Your task to perform on an android device: toggle notification dots Image 0: 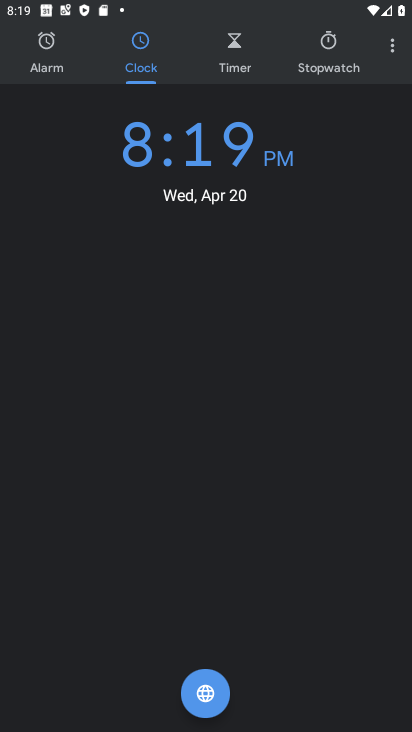
Step 0: press home button
Your task to perform on an android device: toggle notification dots Image 1: 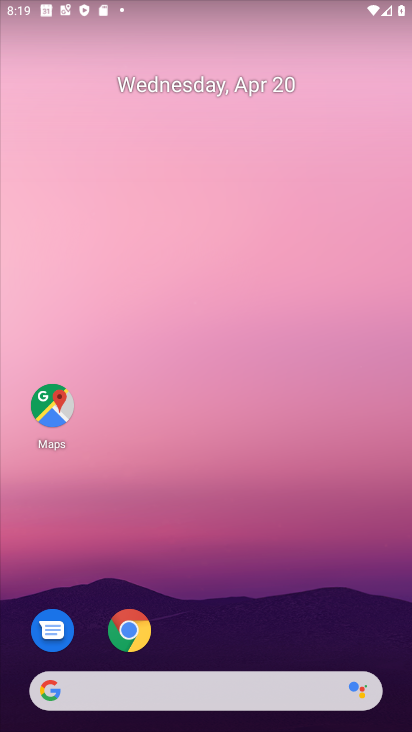
Step 1: drag from (216, 586) to (166, 29)
Your task to perform on an android device: toggle notification dots Image 2: 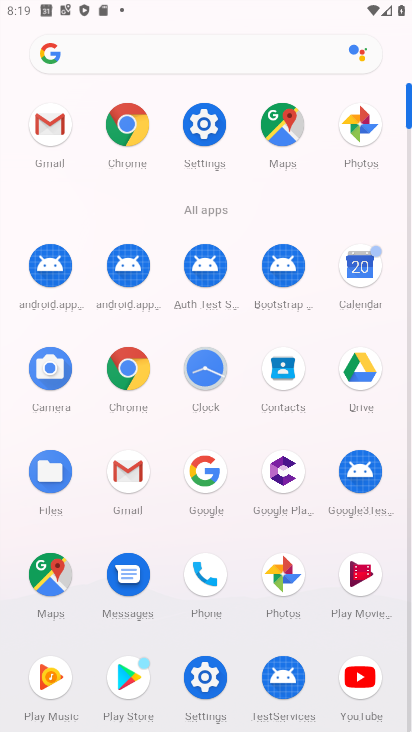
Step 2: click (206, 125)
Your task to perform on an android device: toggle notification dots Image 3: 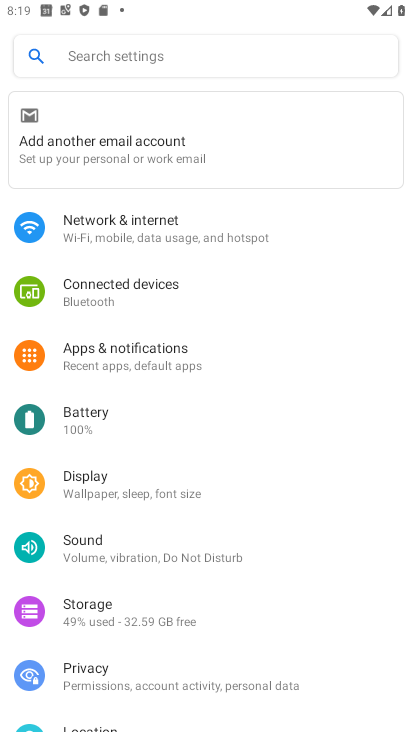
Step 3: click (97, 360)
Your task to perform on an android device: toggle notification dots Image 4: 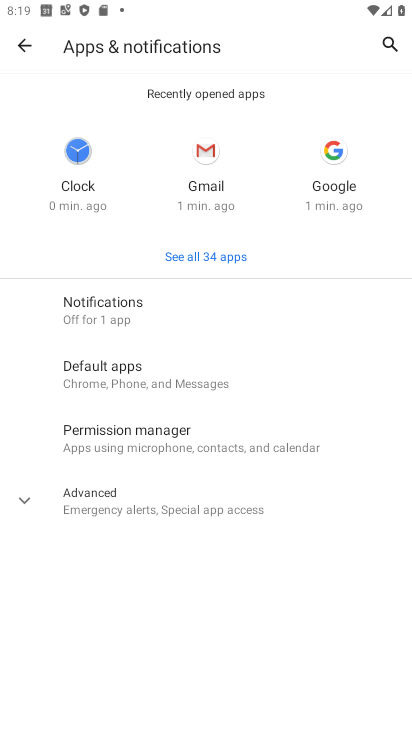
Step 4: click (127, 318)
Your task to perform on an android device: toggle notification dots Image 5: 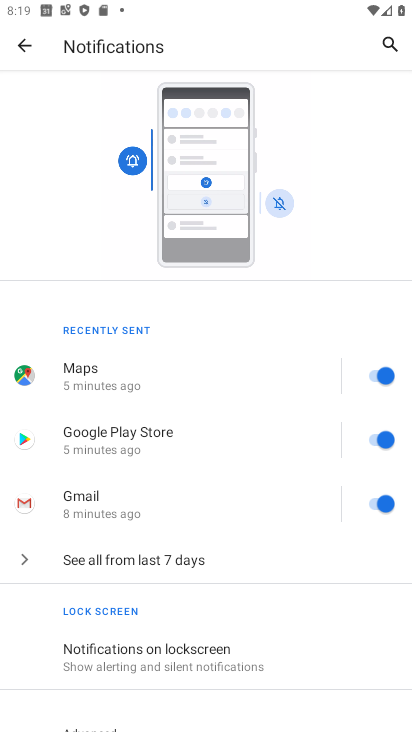
Step 5: drag from (277, 553) to (351, 285)
Your task to perform on an android device: toggle notification dots Image 6: 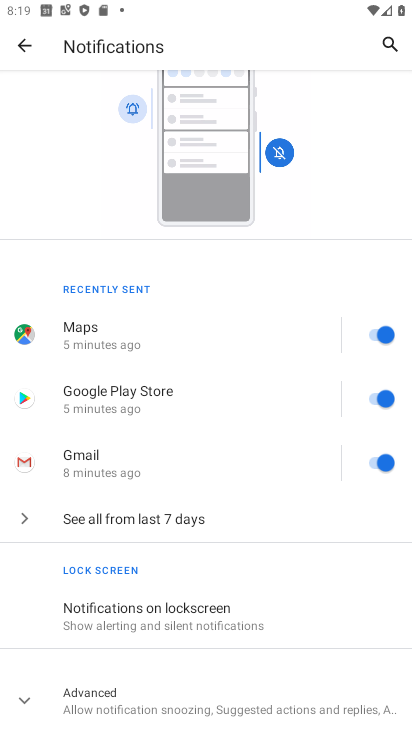
Step 6: click (199, 700)
Your task to perform on an android device: toggle notification dots Image 7: 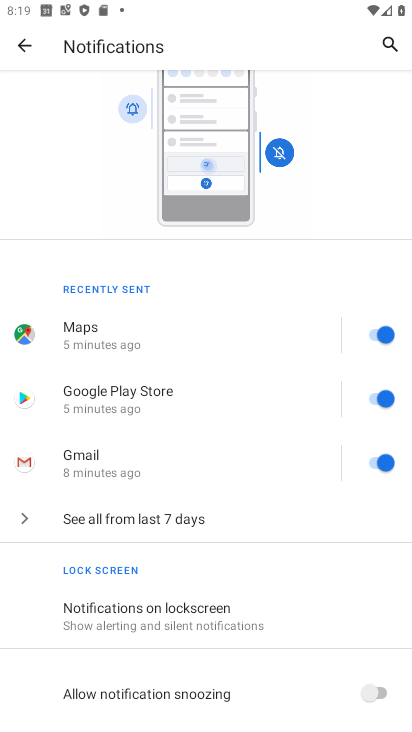
Step 7: drag from (285, 498) to (240, 179)
Your task to perform on an android device: toggle notification dots Image 8: 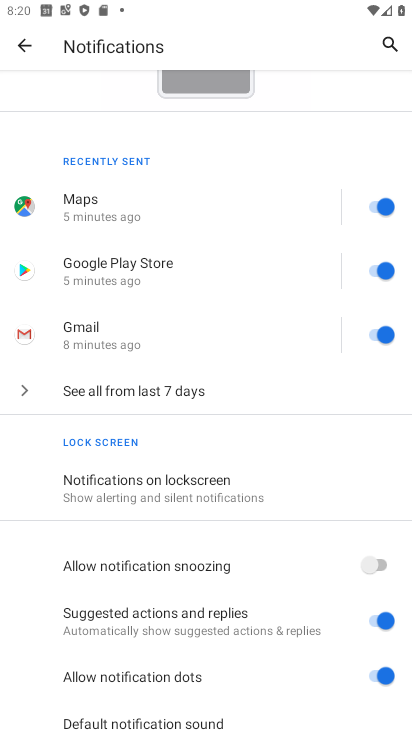
Step 8: click (373, 670)
Your task to perform on an android device: toggle notification dots Image 9: 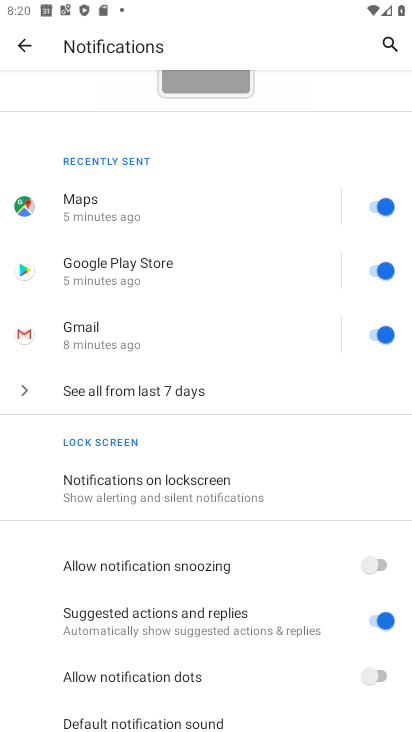
Step 9: task complete